Your task to perform on an android device: Go to Reddit.com Image 0: 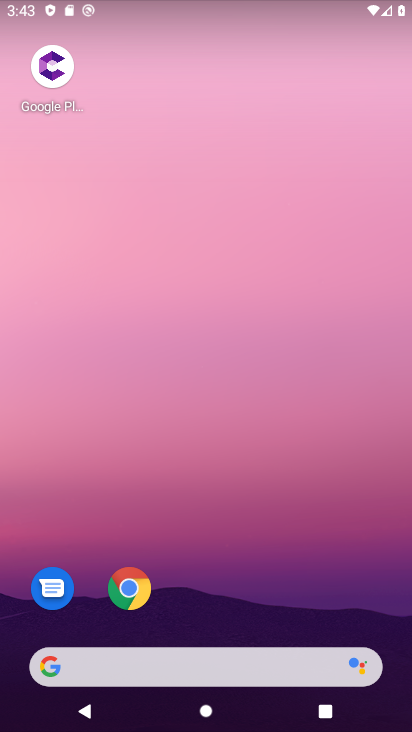
Step 0: drag from (155, 612) to (206, 281)
Your task to perform on an android device: Go to Reddit.com Image 1: 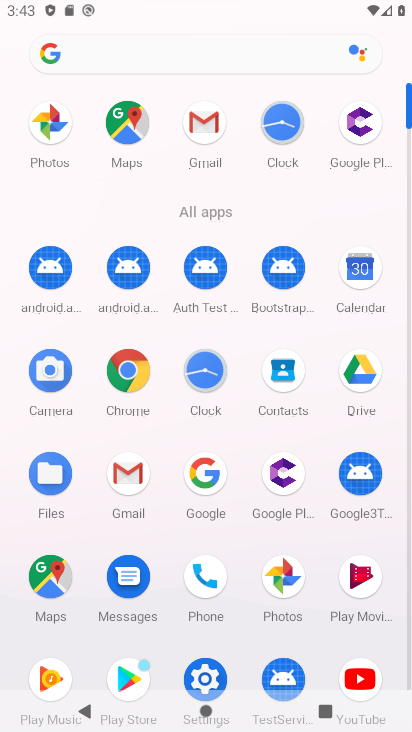
Step 1: click (214, 126)
Your task to perform on an android device: Go to Reddit.com Image 2: 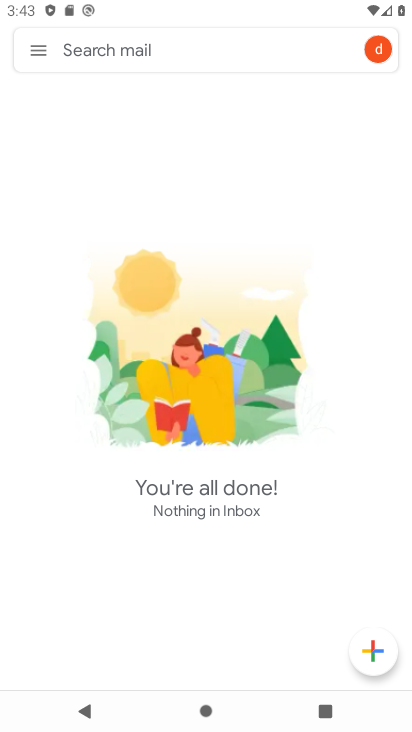
Step 2: press home button
Your task to perform on an android device: Go to Reddit.com Image 3: 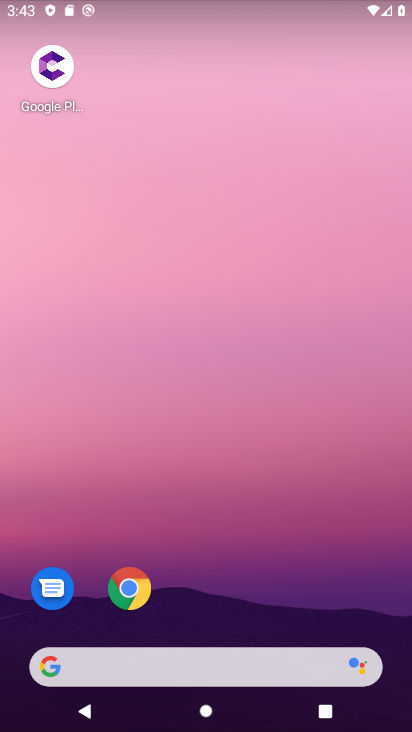
Step 3: drag from (171, 621) to (183, 310)
Your task to perform on an android device: Go to Reddit.com Image 4: 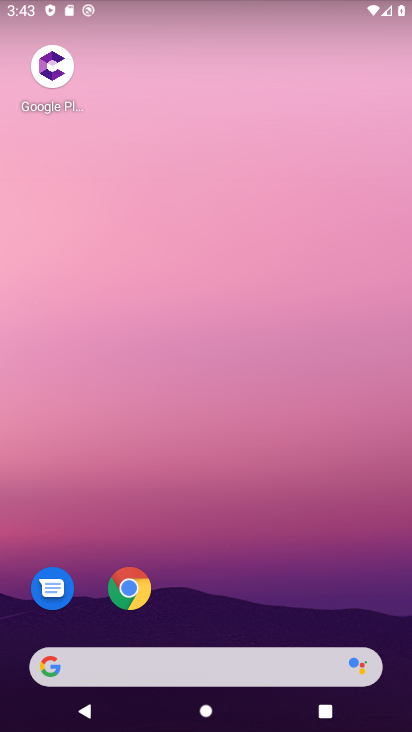
Step 4: drag from (220, 647) to (234, 269)
Your task to perform on an android device: Go to Reddit.com Image 5: 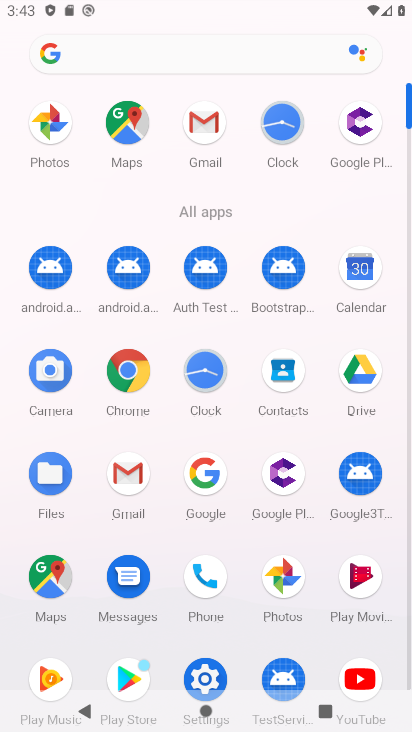
Step 5: click (202, 482)
Your task to perform on an android device: Go to Reddit.com Image 6: 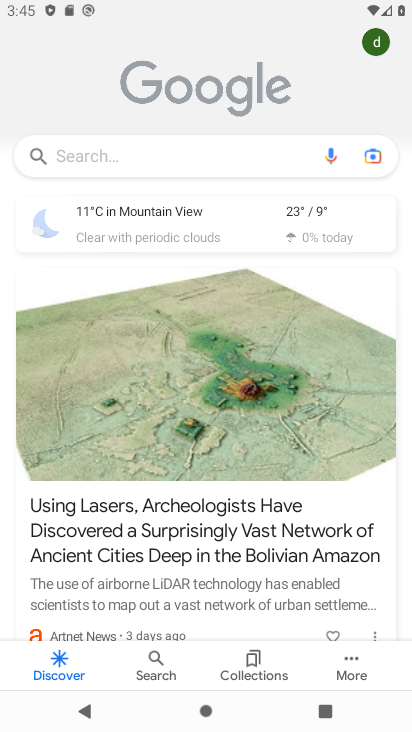
Step 6: click (125, 153)
Your task to perform on an android device: Go to Reddit.com Image 7: 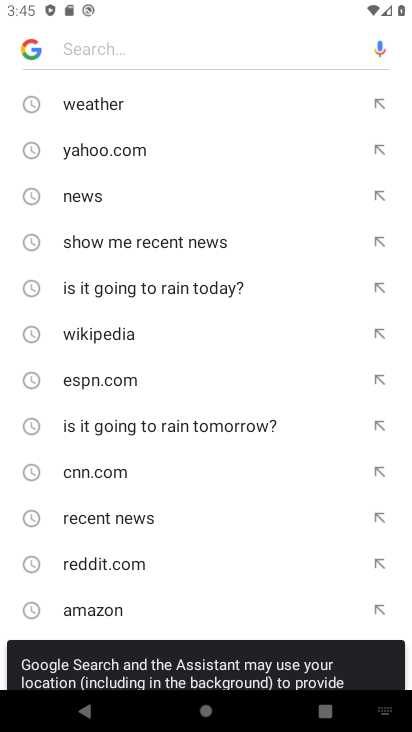
Step 7: click (109, 562)
Your task to perform on an android device: Go to Reddit.com Image 8: 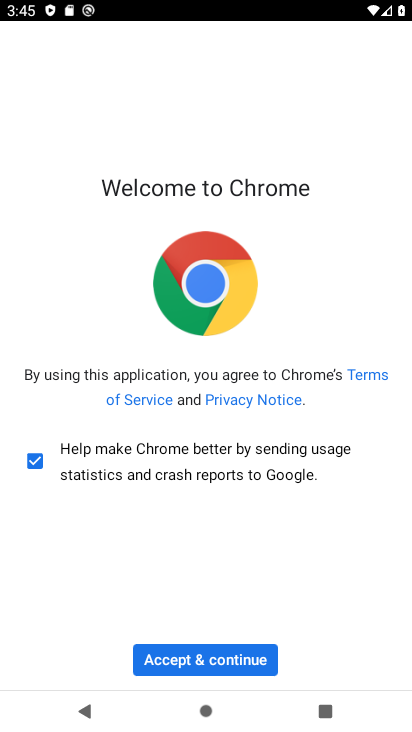
Step 8: click (238, 659)
Your task to perform on an android device: Go to Reddit.com Image 9: 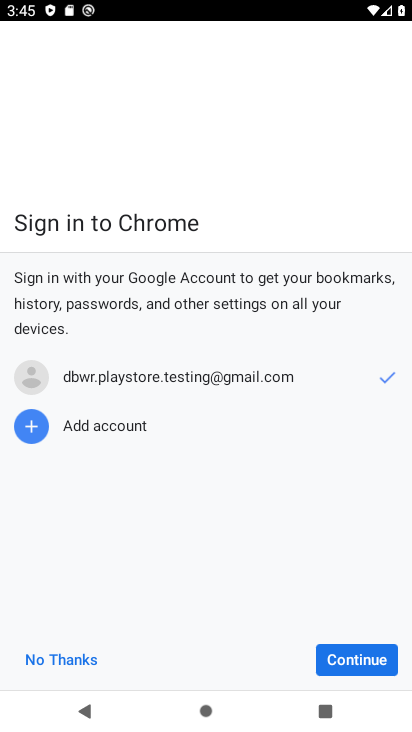
Step 9: click (402, 661)
Your task to perform on an android device: Go to Reddit.com Image 10: 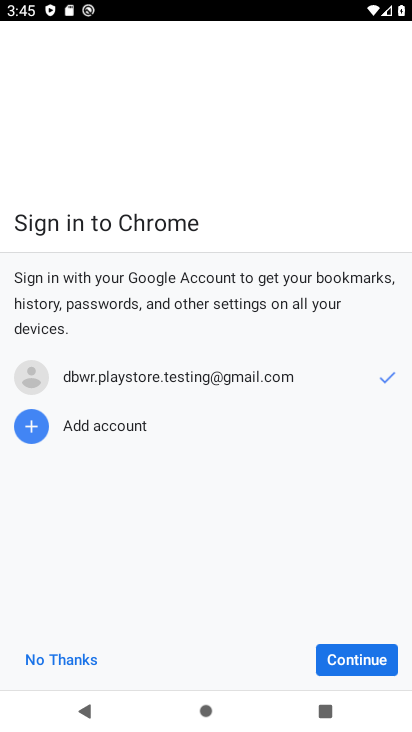
Step 10: click (363, 651)
Your task to perform on an android device: Go to Reddit.com Image 11: 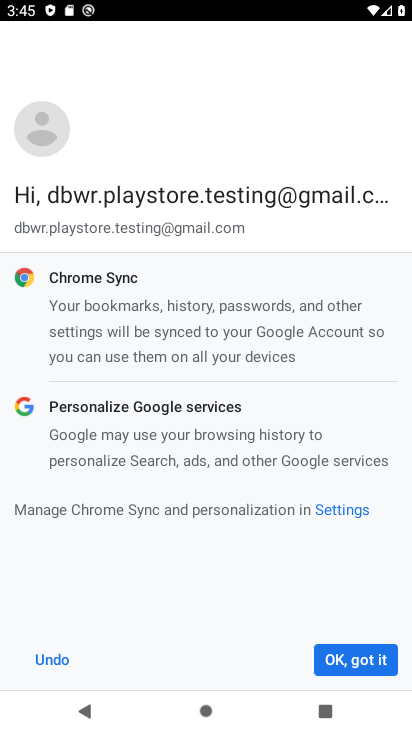
Step 11: click (363, 651)
Your task to perform on an android device: Go to Reddit.com Image 12: 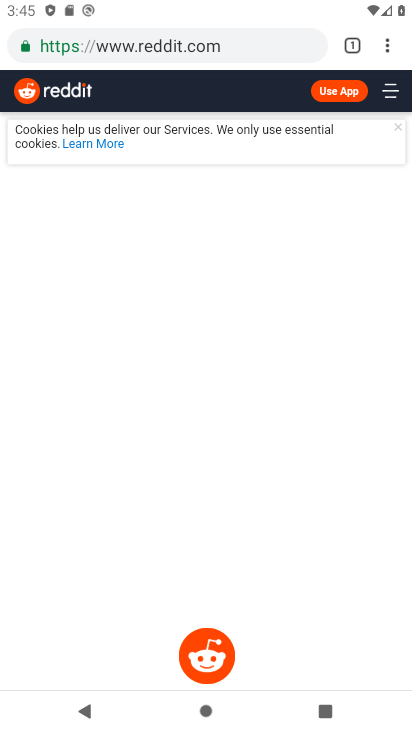
Step 12: task complete